Your task to perform on an android device: Open Youtube and go to the subscriptions tab Image 0: 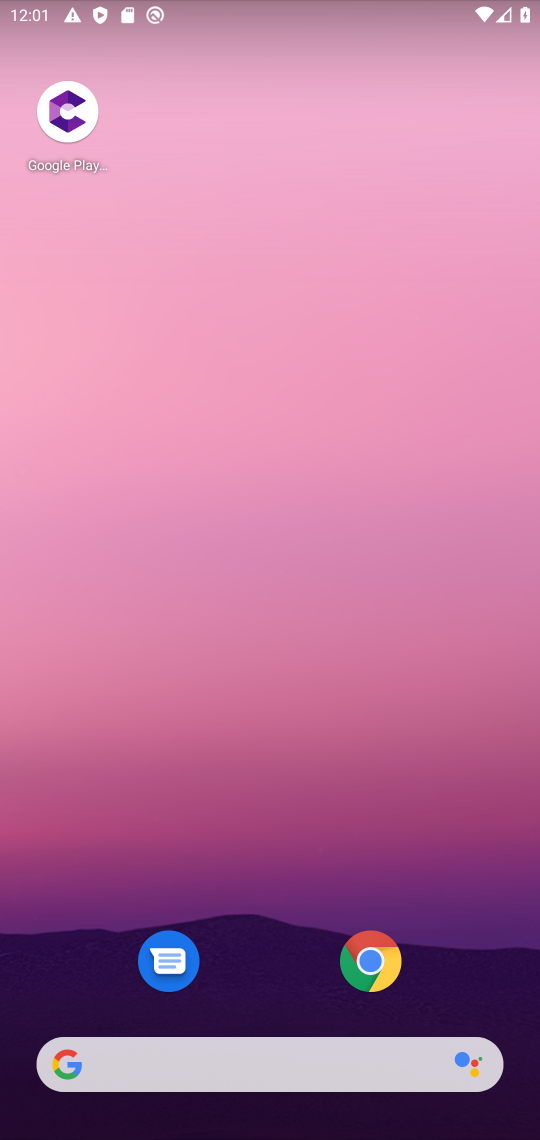
Step 0: drag from (242, 1073) to (370, 40)
Your task to perform on an android device: Open Youtube and go to the subscriptions tab Image 1: 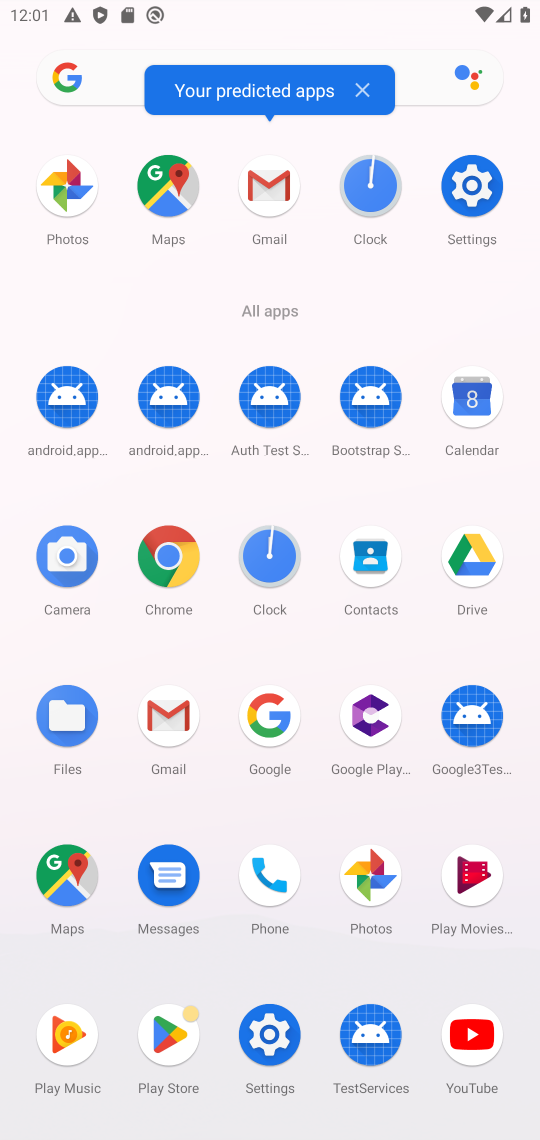
Step 1: click (481, 1063)
Your task to perform on an android device: Open Youtube and go to the subscriptions tab Image 2: 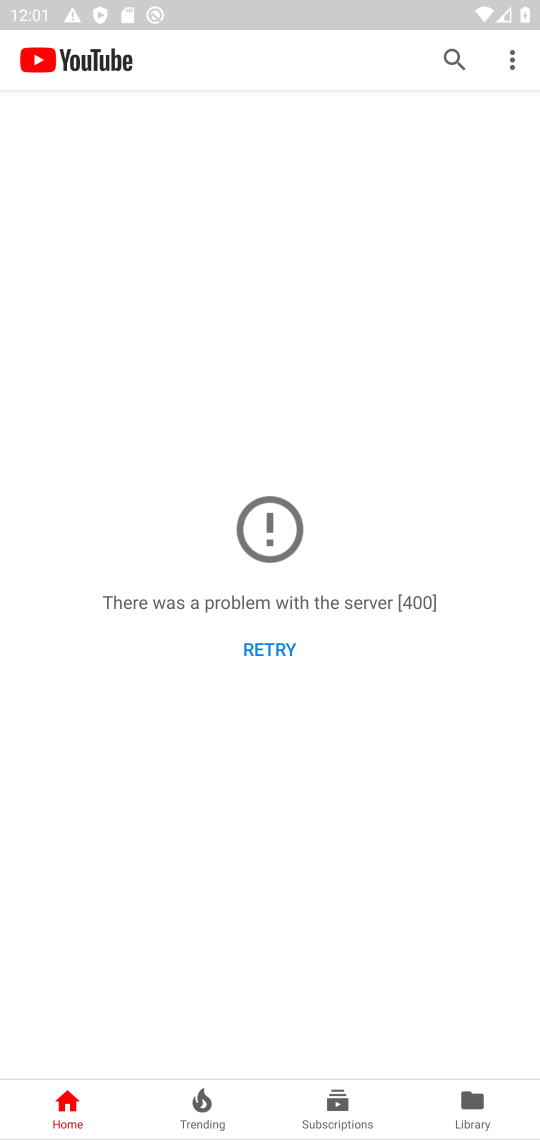
Step 2: click (340, 1099)
Your task to perform on an android device: Open Youtube and go to the subscriptions tab Image 3: 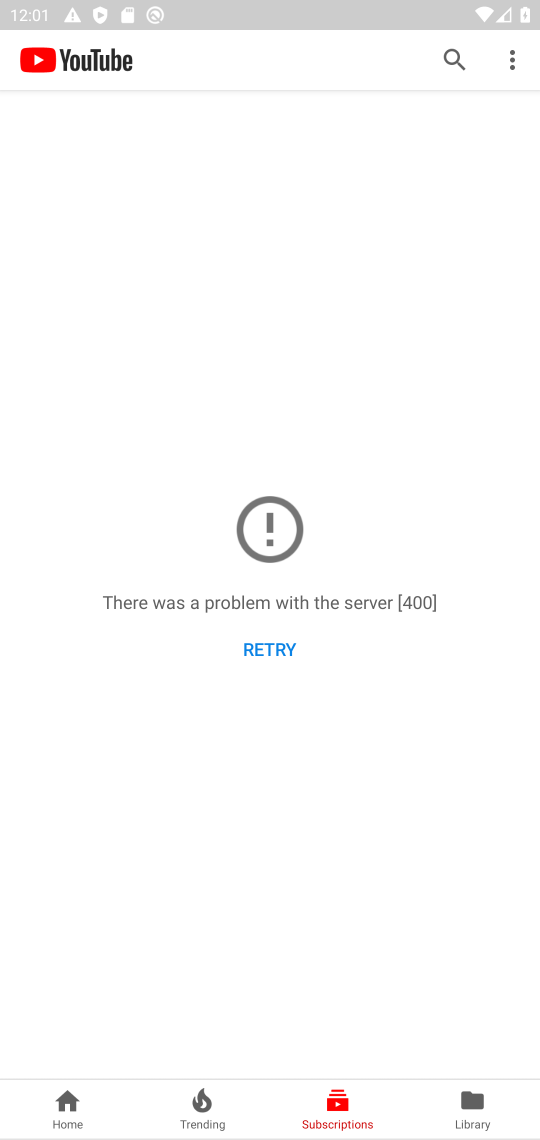
Step 3: task complete